Your task to perform on an android device: Open wifi settings Image 0: 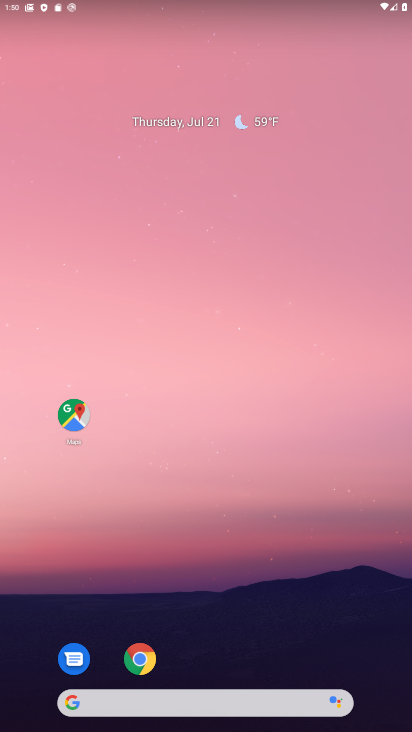
Step 0: drag from (333, 606) to (277, 205)
Your task to perform on an android device: Open wifi settings Image 1: 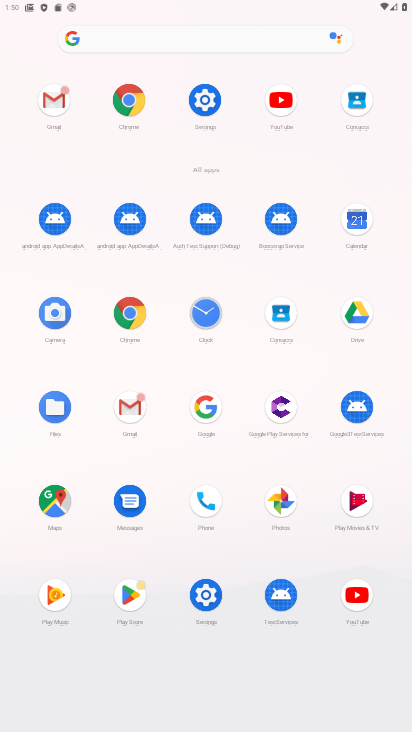
Step 1: click (207, 96)
Your task to perform on an android device: Open wifi settings Image 2: 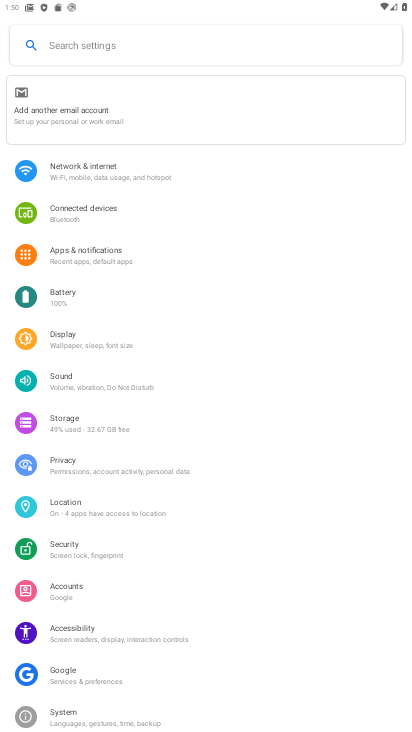
Step 2: click (110, 170)
Your task to perform on an android device: Open wifi settings Image 3: 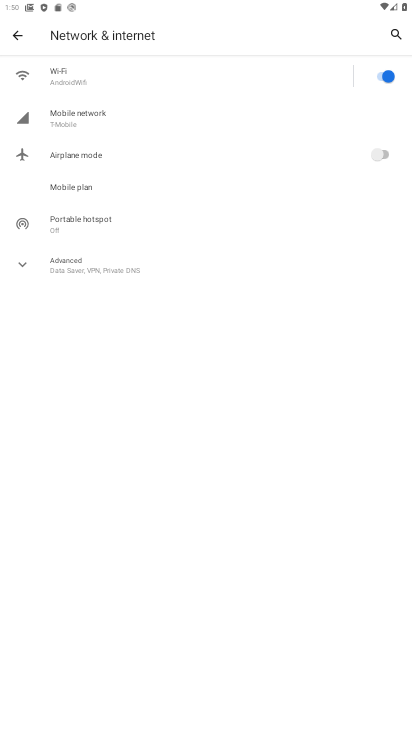
Step 3: click (170, 68)
Your task to perform on an android device: Open wifi settings Image 4: 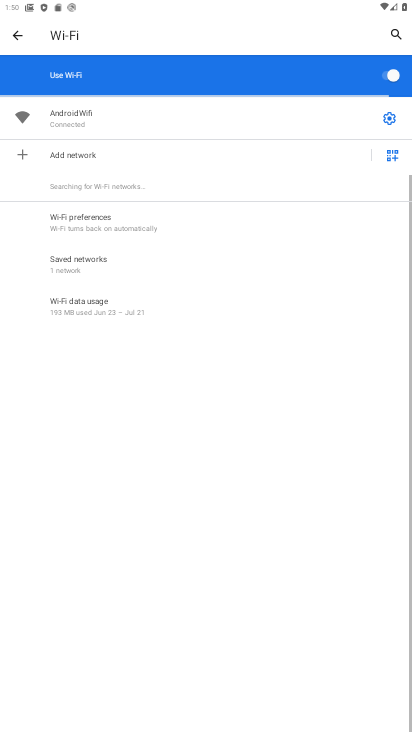
Step 4: click (393, 109)
Your task to perform on an android device: Open wifi settings Image 5: 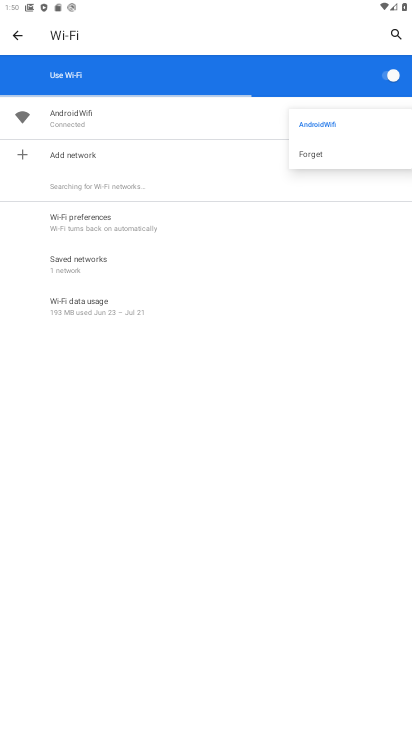
Step 5: click (339, 334)
Your task to perform on an android device: Open wifi settings Image 6: 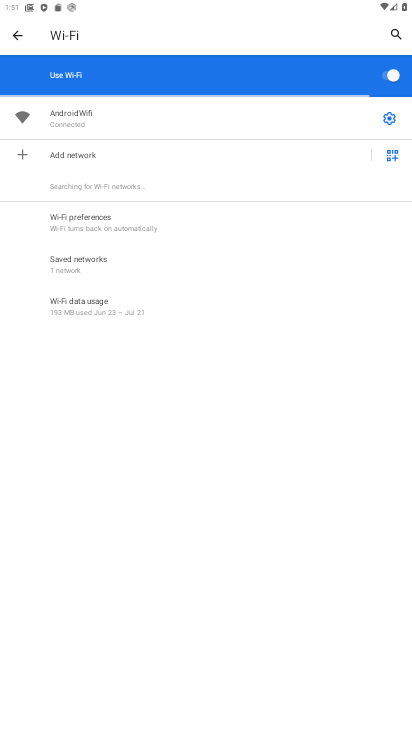
Step 6: click (394, 117)
Your task to perform on an android device: Open wifi settings Image 7: 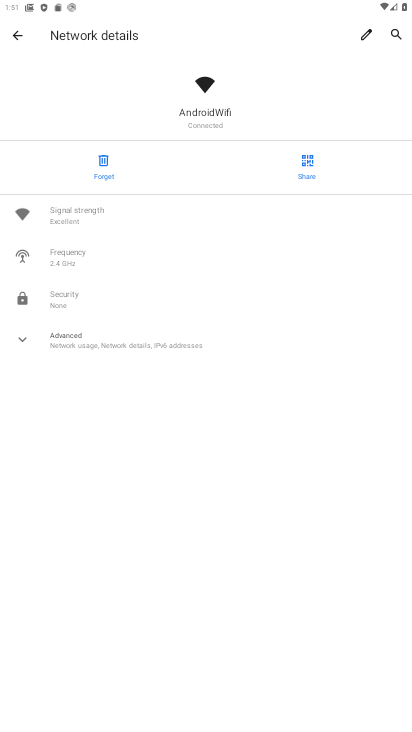
Step 7: task complete